Your task to perform on an android device: toggle improve location accuracy Image 0: 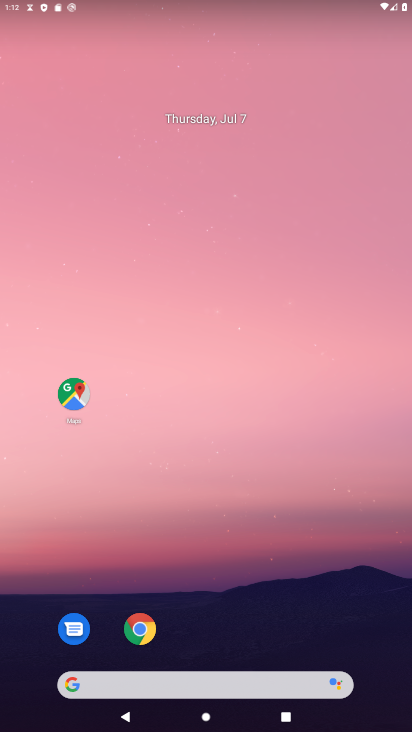
Step 0: drag from (238, 607) to (252, 3)
Your task to perform on an android device: toggle improve location accuracy Image 1: 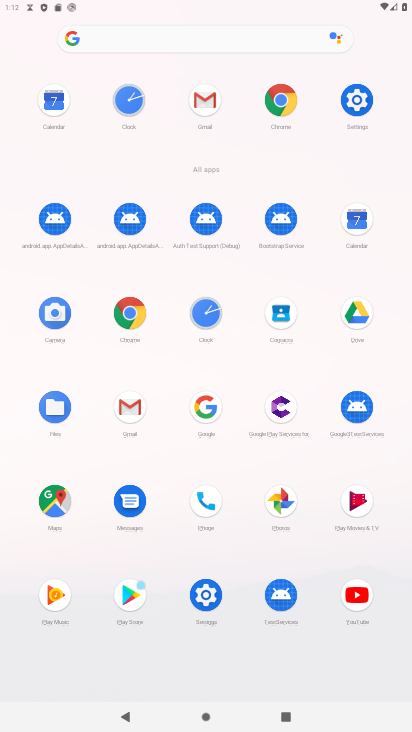
Step 1: click (211, 602)
Your task to perform on an android device: toggle improve location accuracy Image 2: 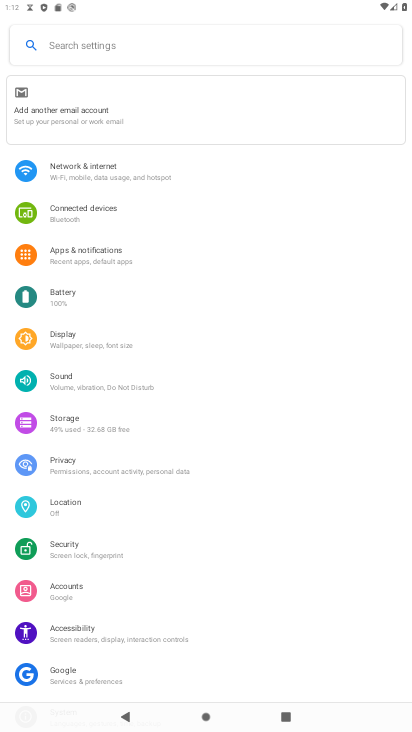
Step 2: click (83, 504)
Your task to perform on an android device: toggle improve location accuracy Image 3: 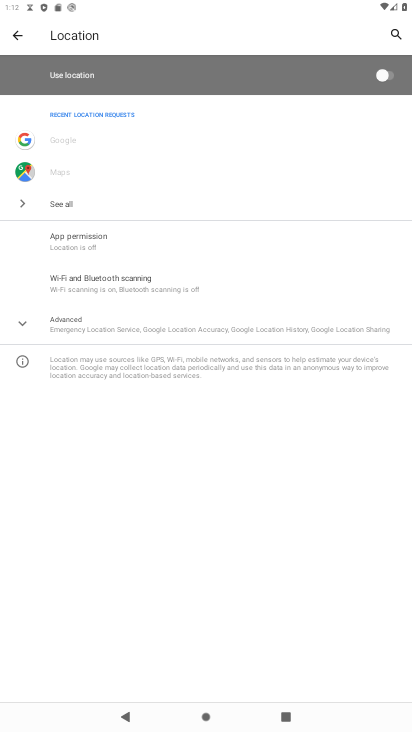
Step 3: click (124, 332)
Your task to perform on an android device: toggle improve location accuracy Image 4: 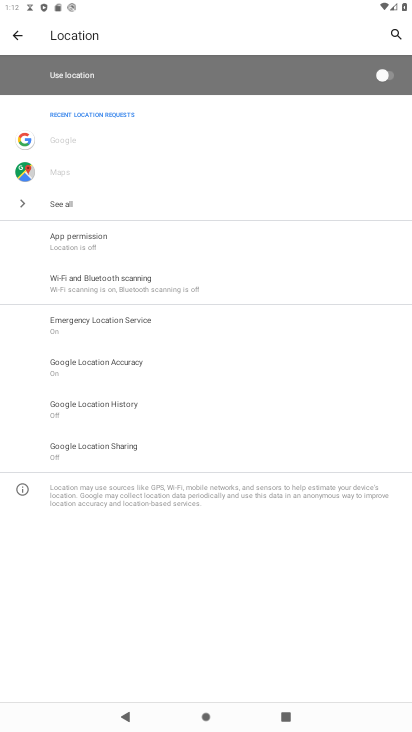
Step 4: click (111, 357)
Your task to perform on an android device: toggle improve location accuracy Image 5: 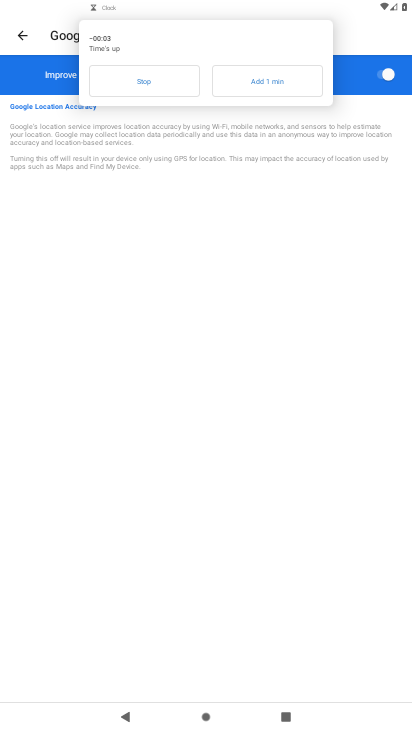
Step 5: click (159, 84)
Your task to perform on an android device: toggle improve location accuracy Image 6: 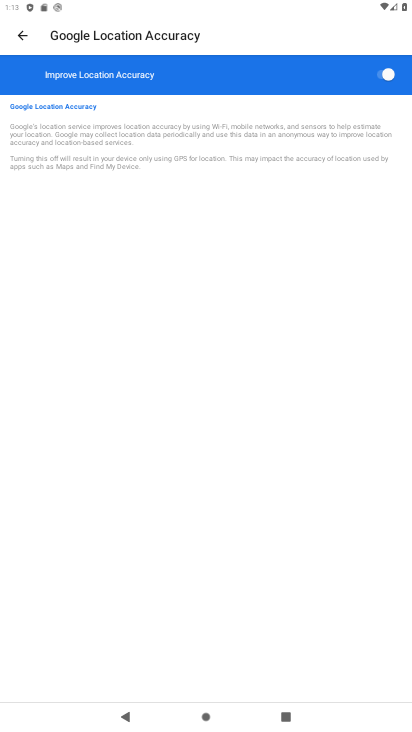
Step 6: click (377, 67)
Your task to perform on an android device: toggle improve location accuracy Image 7: 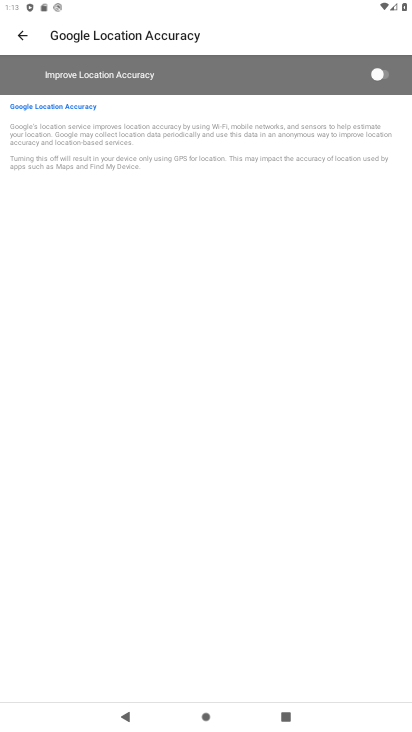
Step 7: task complete